Your task to perform on an android device: open chrome and create a bookmark for the current page Image 0: 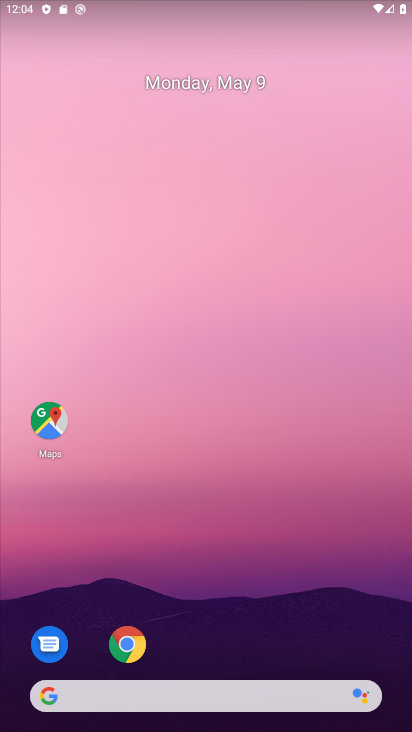
Step 0: click (193, 151)
Your task to perform on an android device: open chrome and create a bookmark for the current page Image 1: 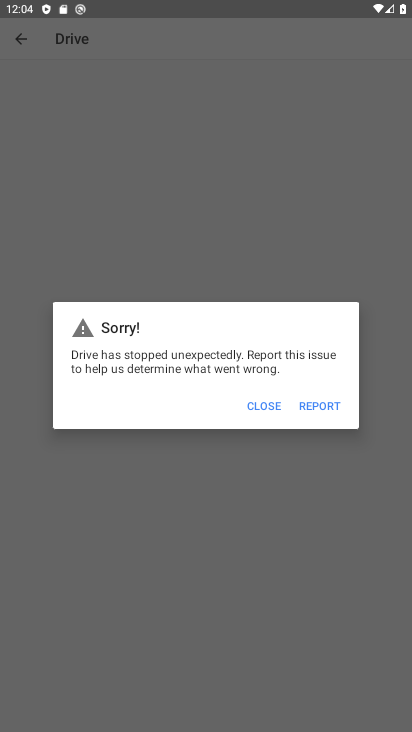
Step 1: click (272, 399)
Your task to perform on an android device: open chrome and create a bookmark for the current page Image 2: 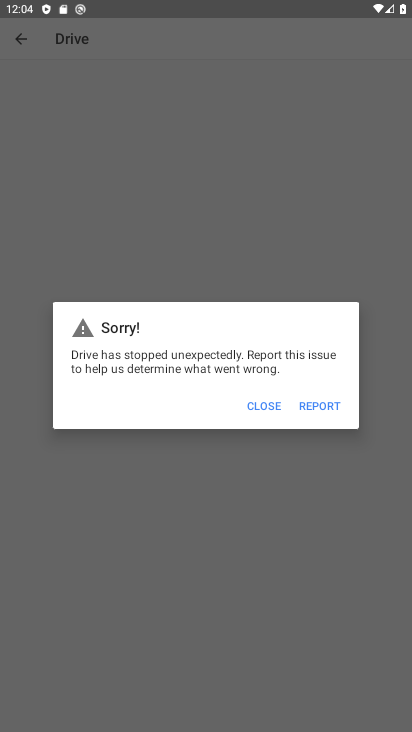
Step 2: click (272, 399)
Your task to perform on an android device: open chrome and create a bookmark for the current page Image 3: 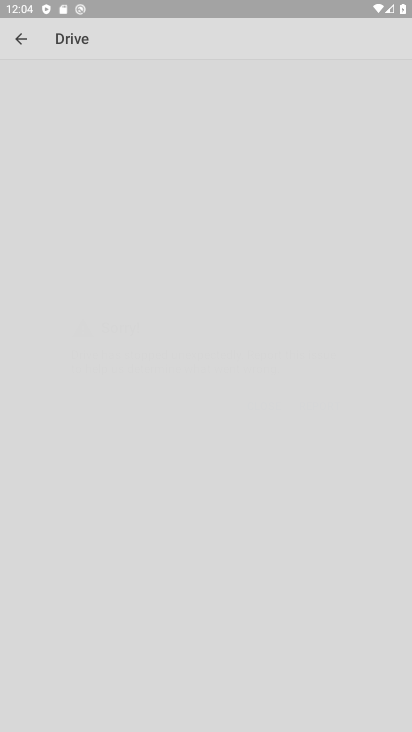
Step 3: click (266, 402)
Your task to perform on an android device: open chrome and create a bookmark for the current page Image 4: 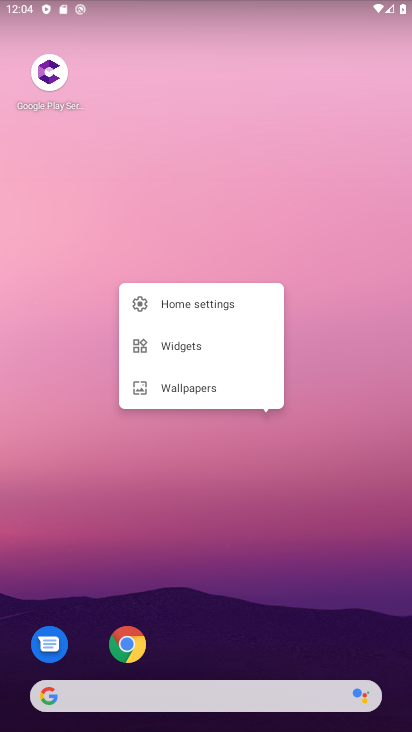
Step 4: click (221, 208)
Your task to perform on an android device: open chrome and create a bookmark for the current page Image 5: 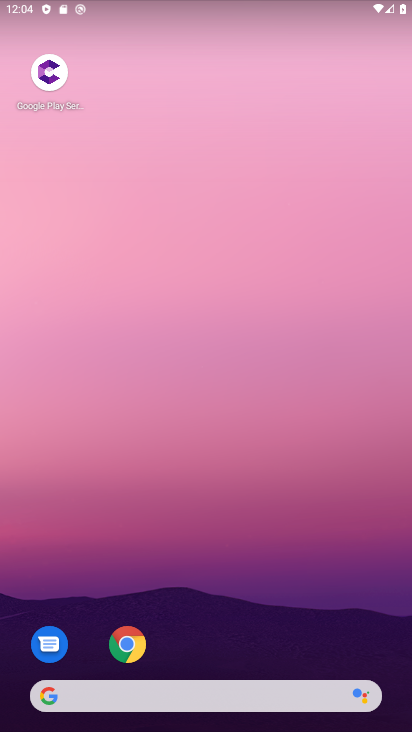
Step 5: drag from (357, 648) to (117, 59)
Your task to perform on an android device: open chrome and create a bookmark for the current page Image 6: 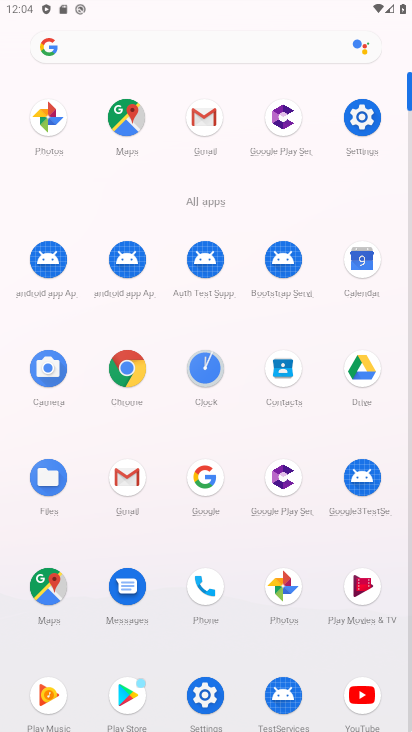
Step 6: click (120, 374)
Your task to perform on an android device: open chrome and create a bookmark for the current page Image 7: 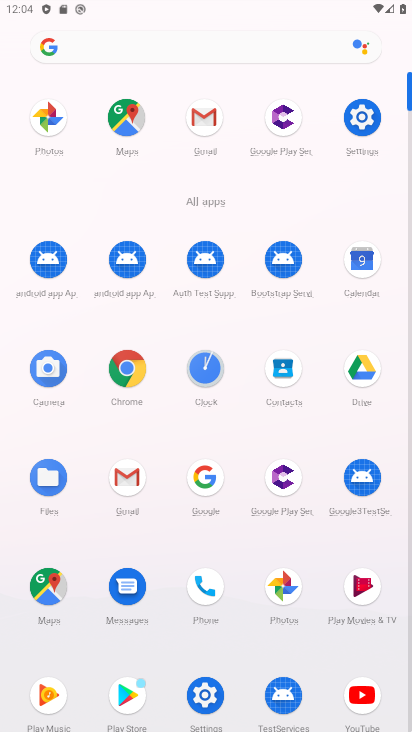
Step 7: click (120, 374)
Your task to perform on an android device: open chrome and create a bookmark for the current page Image 8: 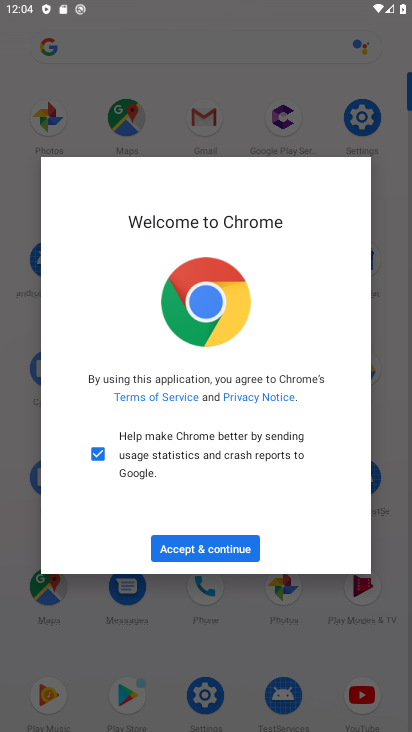
Step 8: click (214, 539)
Your task to perform on an android device: open chrome and create a bookmark for the current page Image 9: 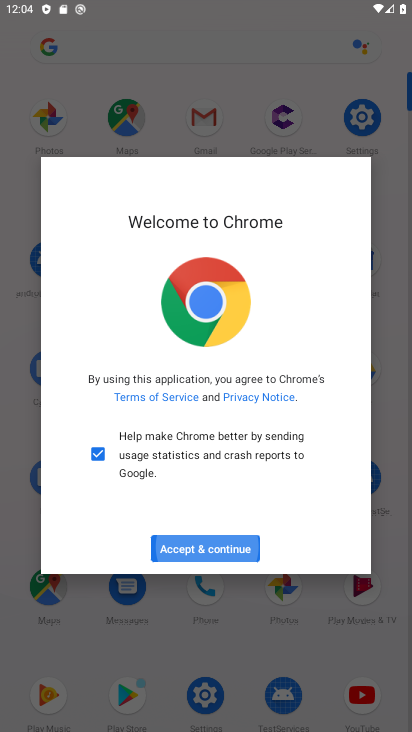
Step 9: click (213, 542)
Your task to perform on an android device: open chrome and create a bookmark for the current page Image 10: 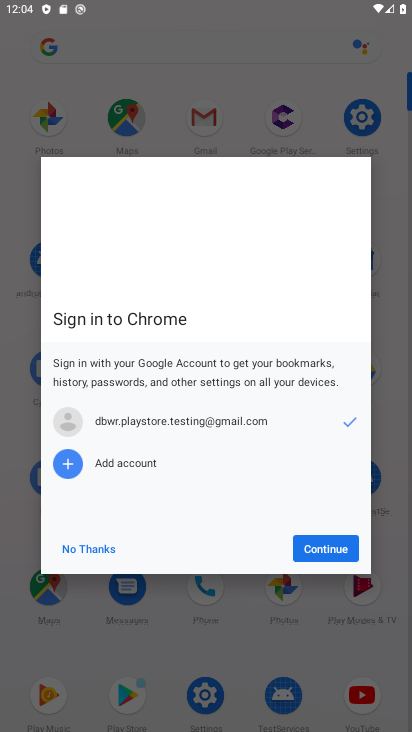
Step 10: click (213, 542)
Your task to perform on an android device: open chrome and create a bookmark for the current page Image 11: 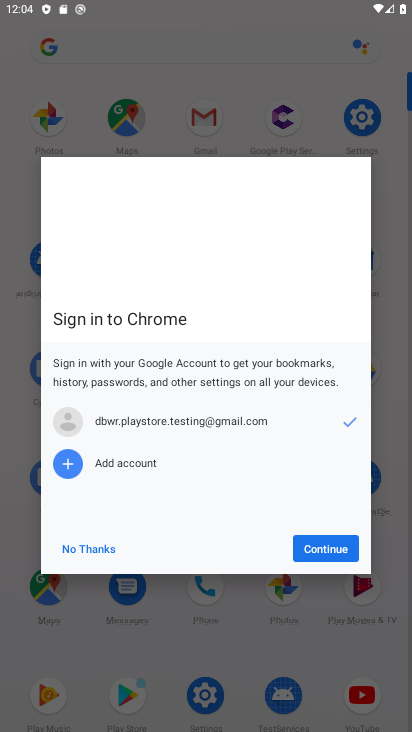
Step 11: click (213, 542)
Your task to perform on an android device: open chrome and create a bookmark for the current page Image 12: 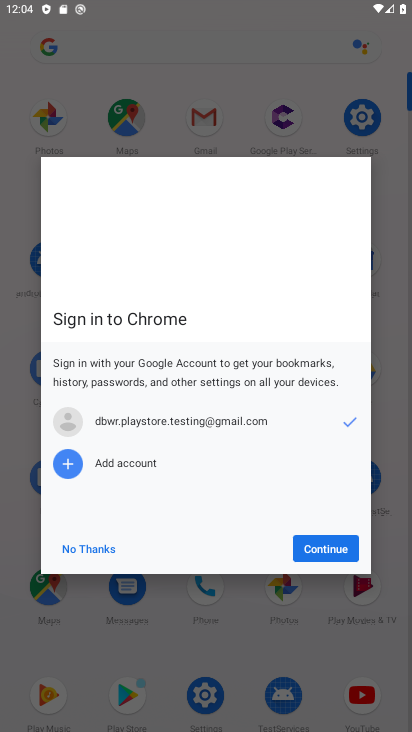
Step 12: click (327, 549)
Your task to perform on an android device: open chrome and create a bookmark for the current page Image 13: 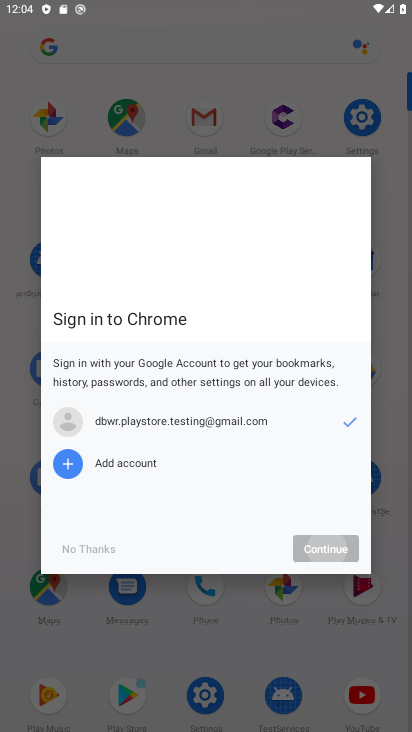
Step 13: click (328, 548)
Your task to perform on an android device: open chrome and create a bookmark for the current page Image 14: 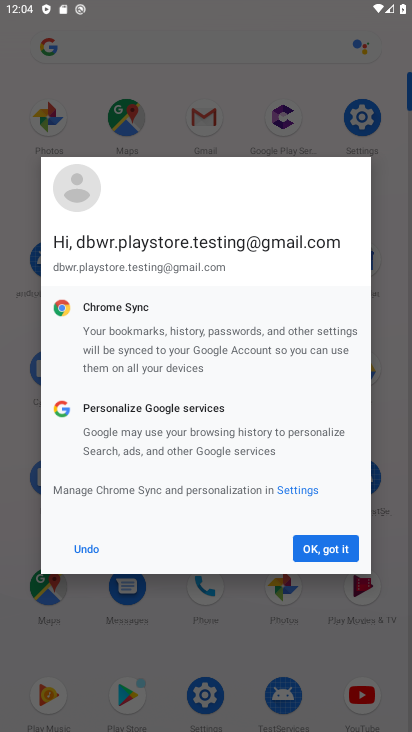
Step 14: click (327, 547)
Your task to perform on an android device: open chrome and create a bookmark for the current page Image 15: 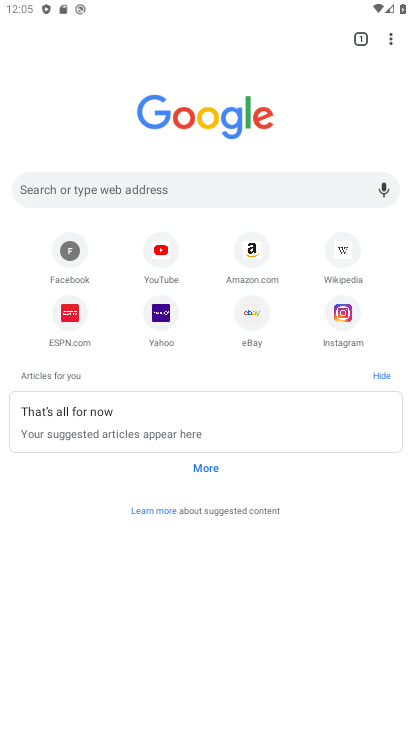
Step 15: click (59, 186)
Your task to perform on an android device: open chrome and create a bookmark for the current page Image 16: 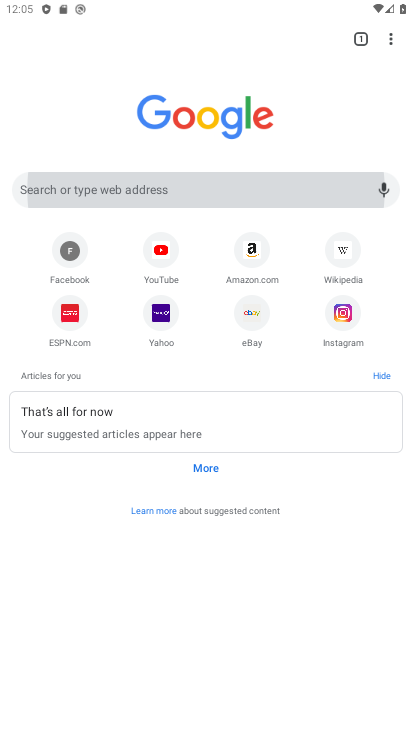
Step 16: click (59, 187)
Your task to perform on an android device: open chrome and create a bookmark for the current page Image 17: 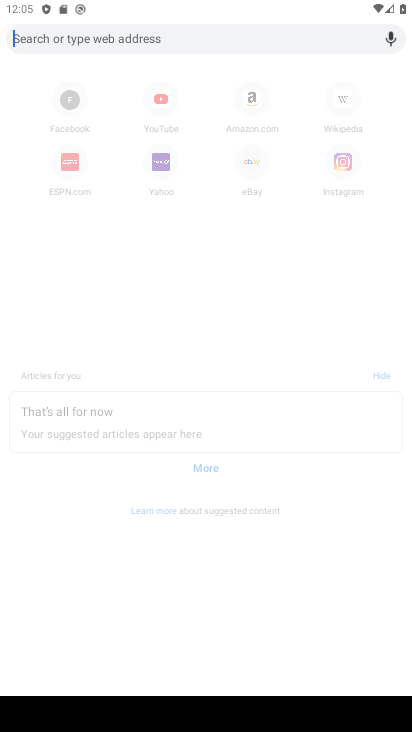
Step 17: type "www.snapdeal.com"
Your task to perform on an android device: open chrome and create a bookmark for the current page Image 18: 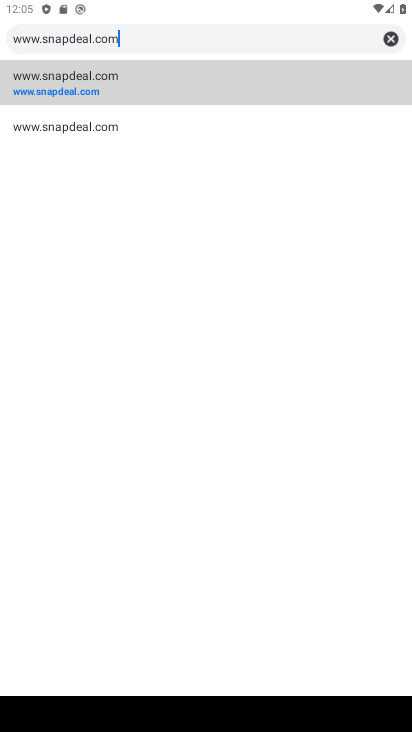
Step 18: click (46, 78)
Your task to perform on an android device: open chrome and create a bookmark for the current page Image 19: 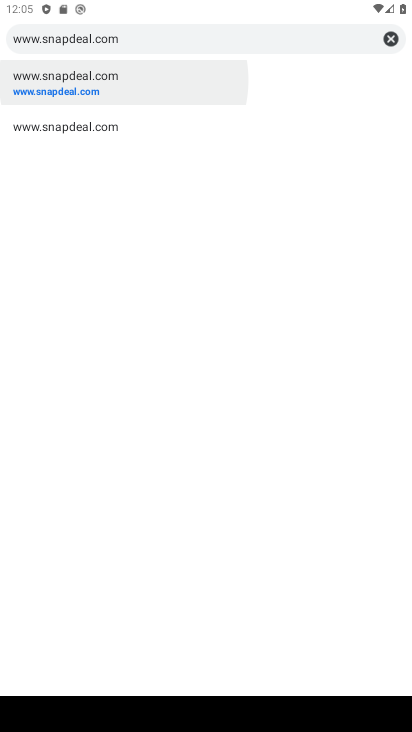
Step 19: click (47, 79)
Your task to perform on an android device: open chrome and create a bookmark for the current page Image 20: 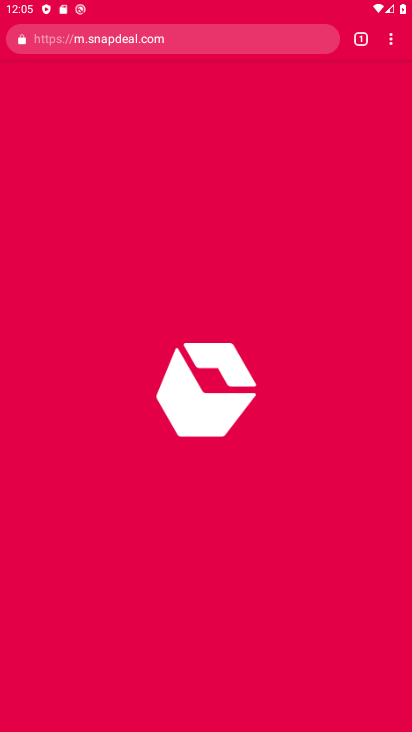
Step 20: task complete